Your task to perform on an android device: Open the phone app and click the voicemail tab. Image 0: 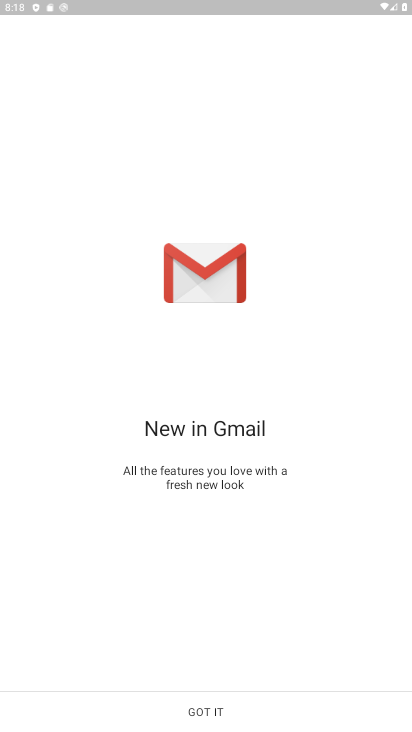
Step 0: press home button
Your task to perform on an android device: Open the phone app and click the voicemail tab. Image 1: 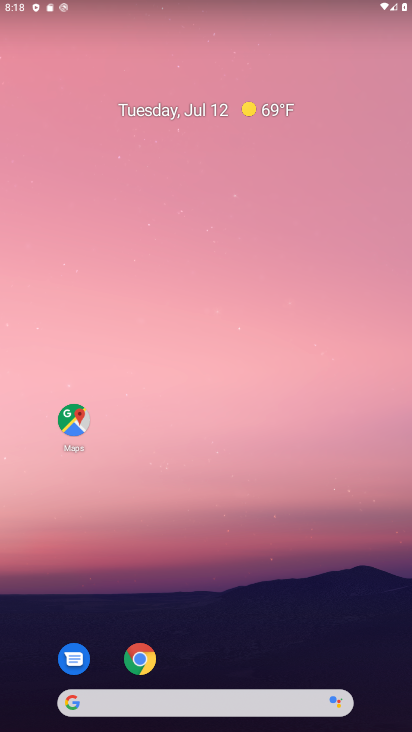
Step 1: drag from (208, 728) to (229, 236)
Your task to perform on an android device: Open the phone app and click the voicemail tab. Image 2: 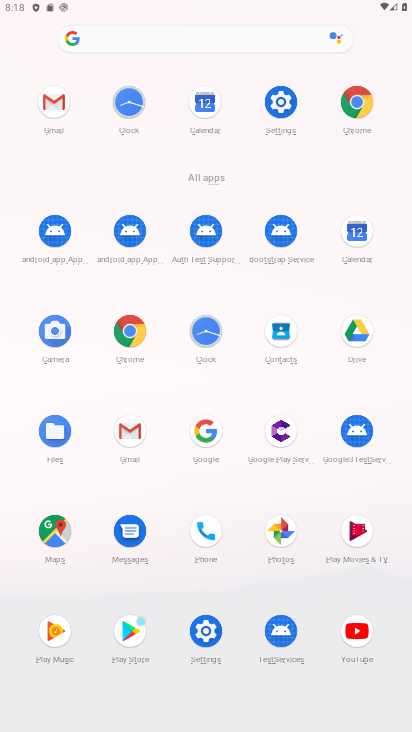
Step 2: click (199, 531)
Your task to perform on an android device: Open the phone app and click the voicemail tab. Image 3: 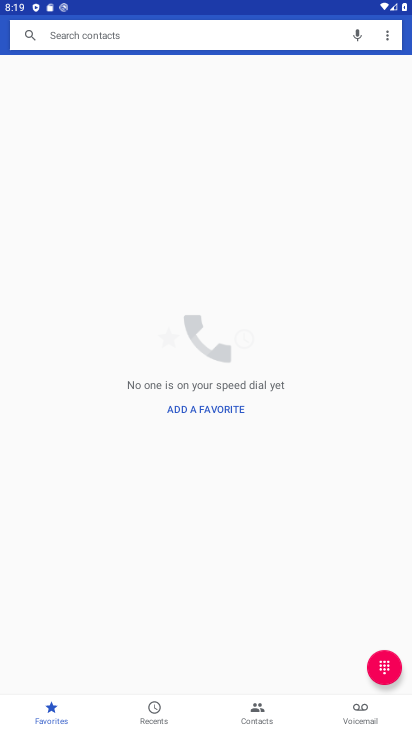
Step 3: click (360, 708)
Your task to perform on an android device: Open the phone app and click the voicemail tab. Image 4: 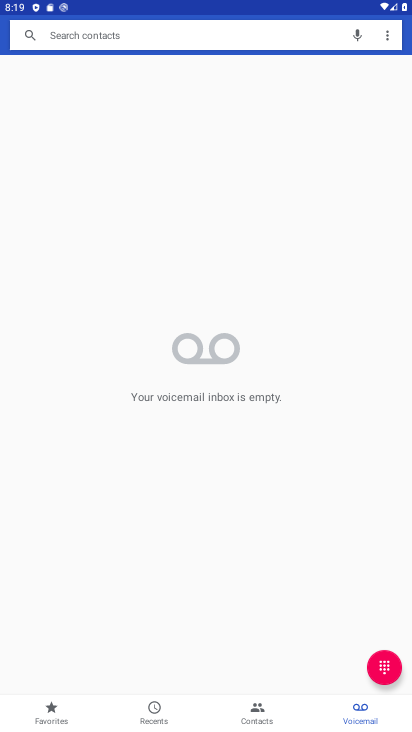
Step 4: task complete